Your task to perform on an android device: turn off wifi Image 0: 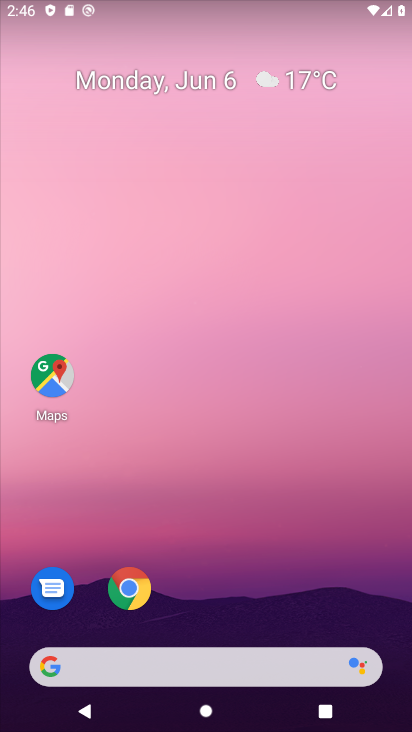
Step 0: drag from (230, 647) to (128, 2)
Your task to perform on an android device: turn off wifi Image 1: 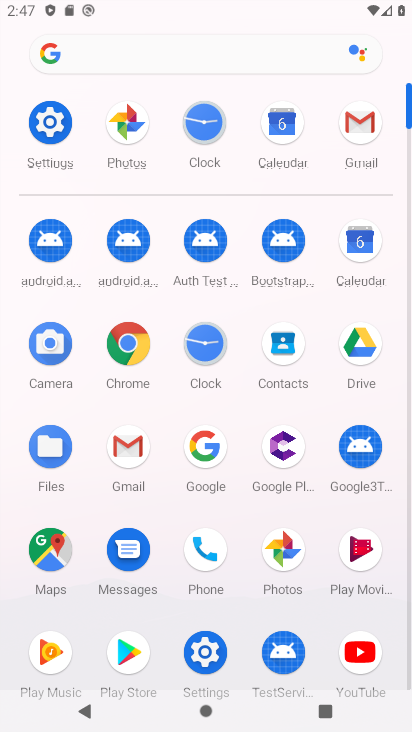
Step 1: click (42, 128)
Your task to perform on an android device: turn off wifi Image 2: 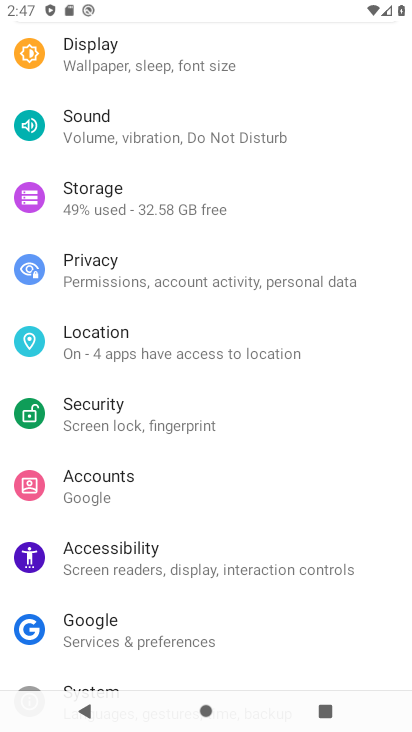
Step 2: drag from (181, 138) to (211, 558)
Your task to perform on an android device: turn off wifi Image 3: 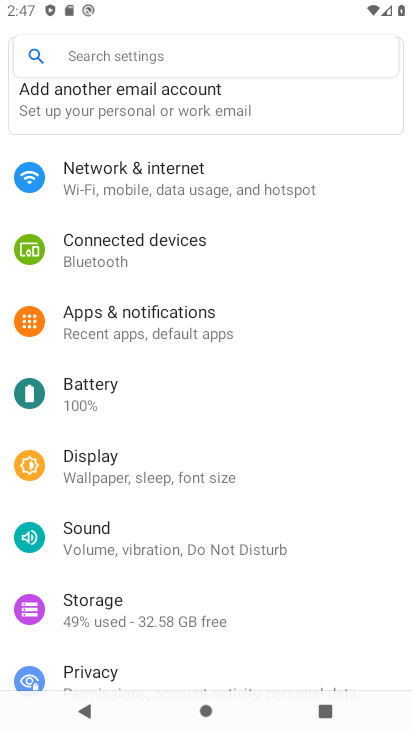
Step 3: click (169, 162)
Your task to perform on an android device: turn off wifi Image 4: 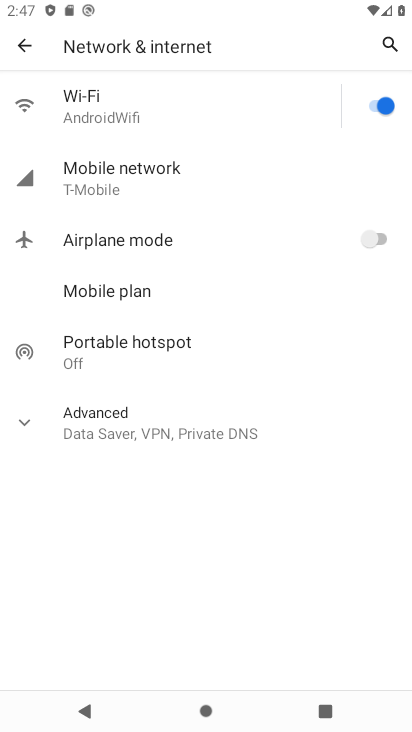
Step 4: click (387, 97)
Your task to perform on an android device: turn off wifi Image 5: 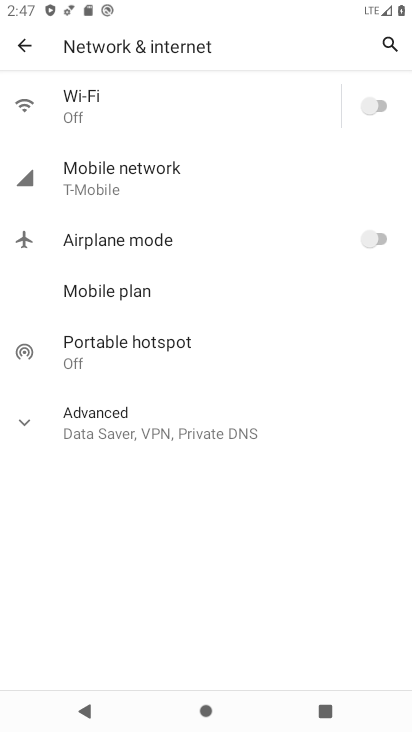
Step 5: task complete